Your task to perform on an android device: choose inbox layout in the gmail app Image 0: 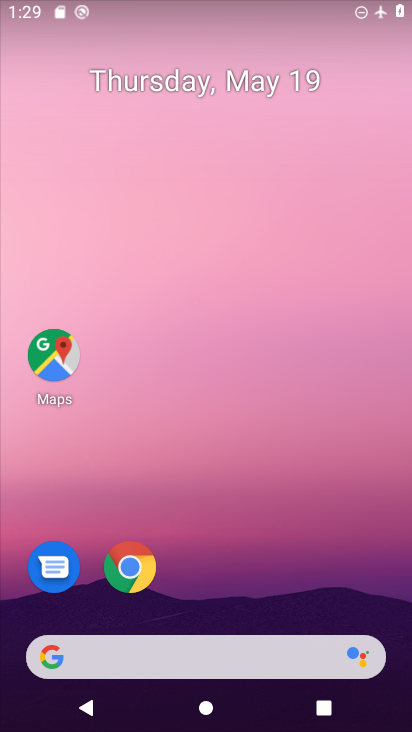
Step 0: drag from (235, 533) to (248, 80)
Your task to perform on an android device: choose inbox layout in the gmail app Image 1: 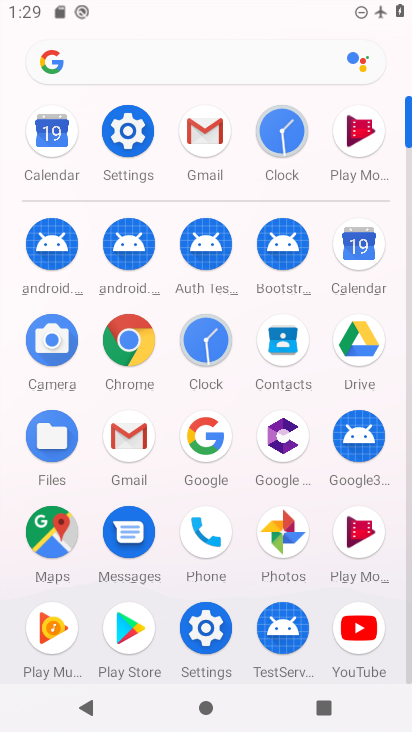
Step 1: click (210, 126)
Your task to perform on an android device: choose inbox layout in the gmail app Image 2: 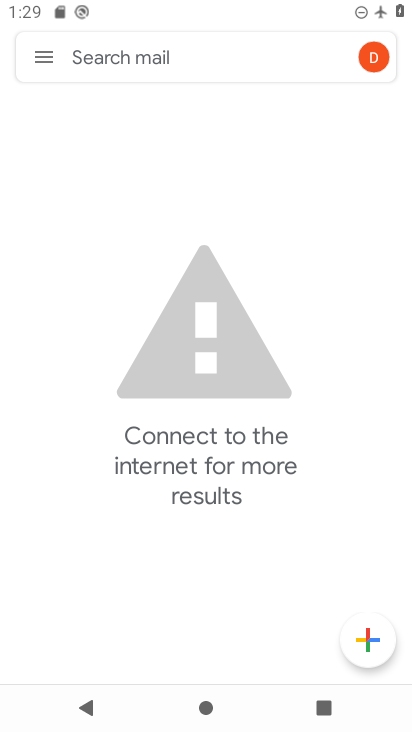
Step 2: click (41, 58)
Your task to perform on an android device: choose inbox layout in the gmail app Image 3: 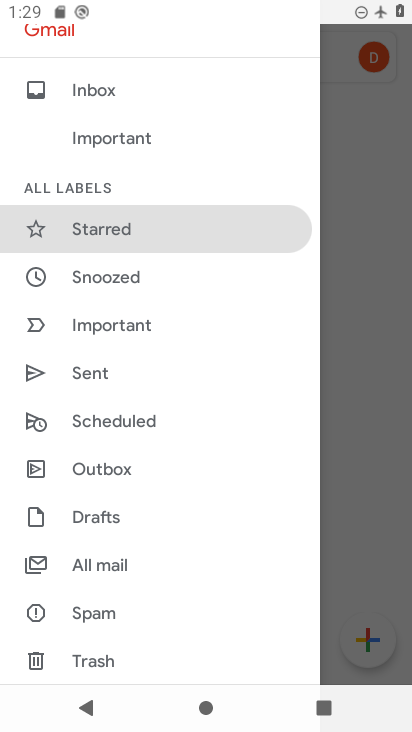
Step 3: drag from (163, 613) to (163, 246)
Your task to perform on an android device: choose inbox layout in the gmail app Image 4: 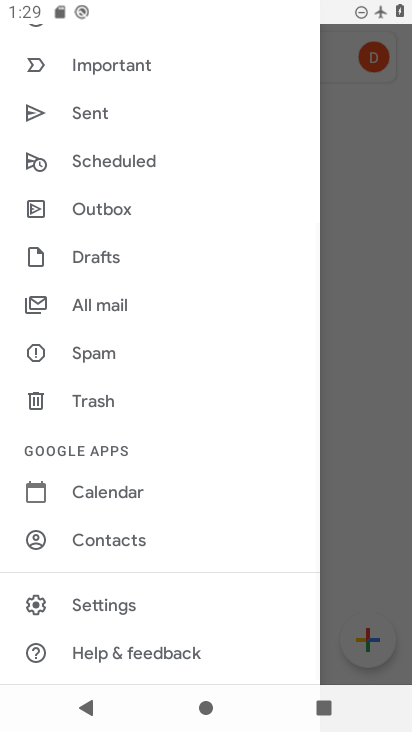
Step 4: click (118, 606)
Your task to perform on an android device: choose inbox layout in the gmail app Image 5: 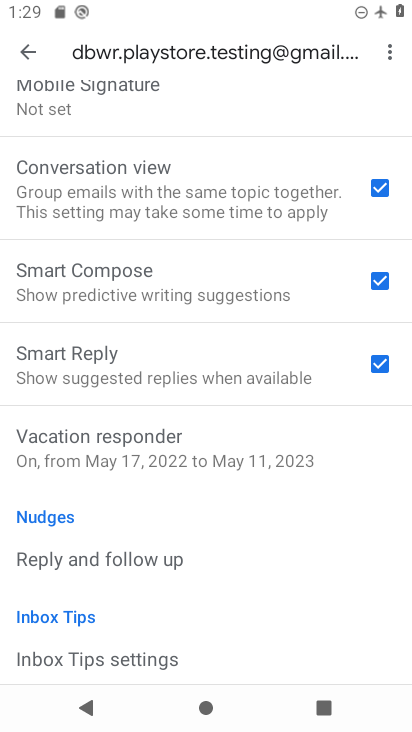
Step 5: drag from (203, 216) to (277, 690)
Your task to perform on an android device: choose inbox layout in the gmail app Image 6: 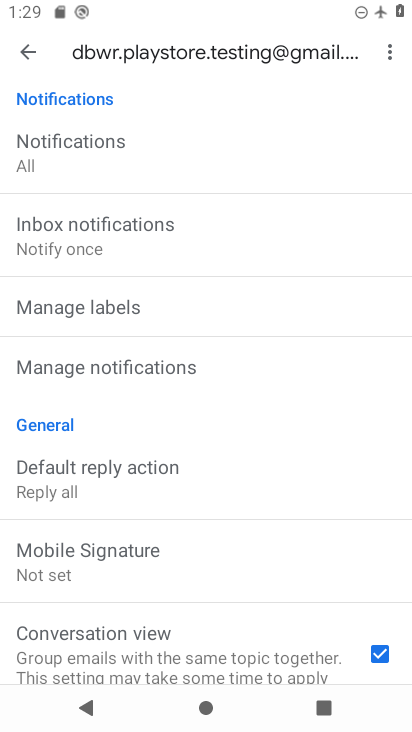
Step 6: drag from (225, 152) to (236, 531)
Your task to perform on an android device: choose inbox layout in the gmail app Image 7: 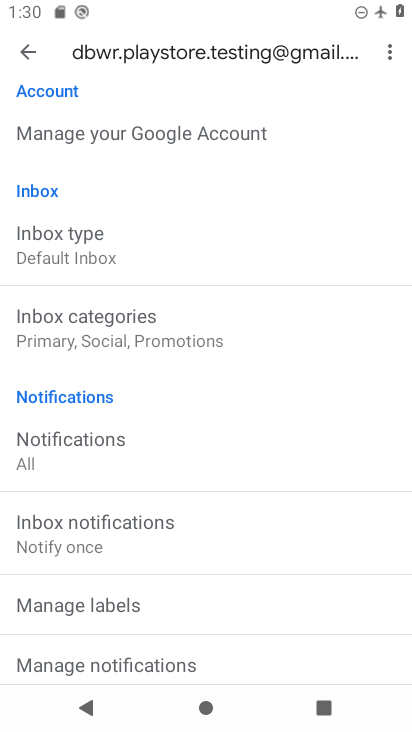
Step 7: click (39, 221)
Your task to perform on an android device: choose inbox layout in the gmail app Image 8: 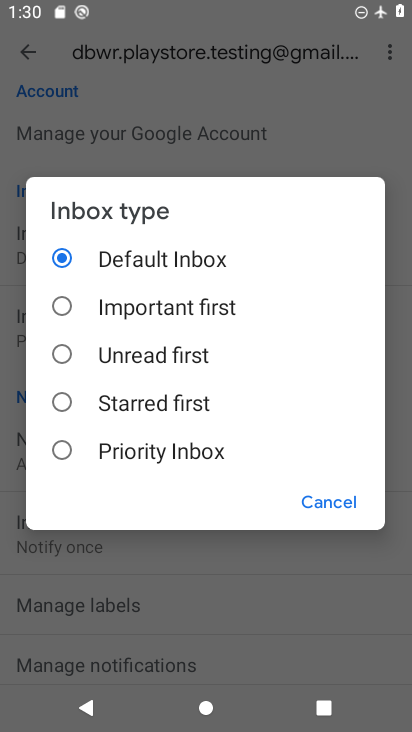
Step 8: click (68, 294)
Your task to perform on an android device: choose inbox layout in the gmail app Image 9: 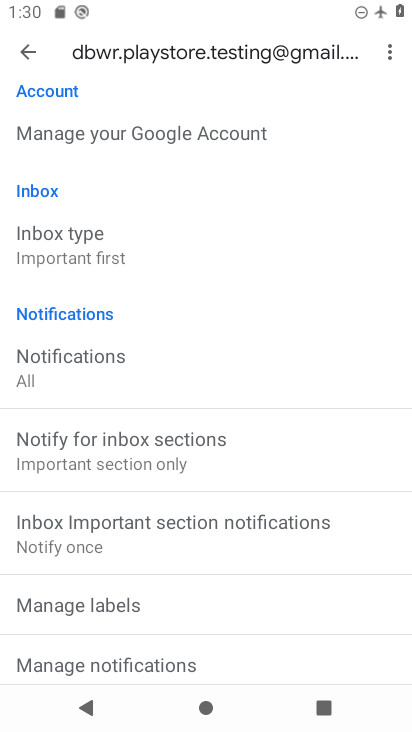
Step 9: task complete